Your task to perform on an android device: Open the calendar and show me this week's events? Image 0: 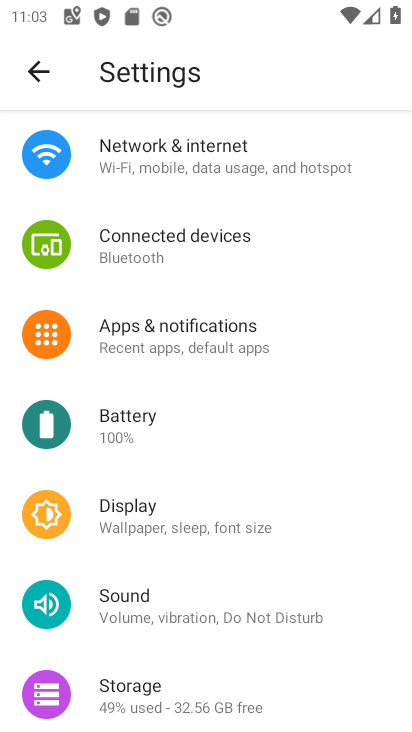
Step 0: press home button
Your task to perform on an android device: Open the calendar and show me this week's events? Image 1: 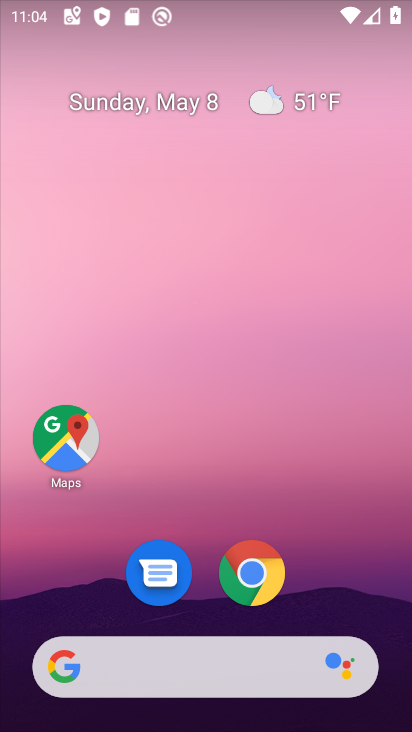
Step 1: drag from (263, 626) to (223, 280)
Your task to perform on an android device: Open the calendar and show me this week's events? Image 2: 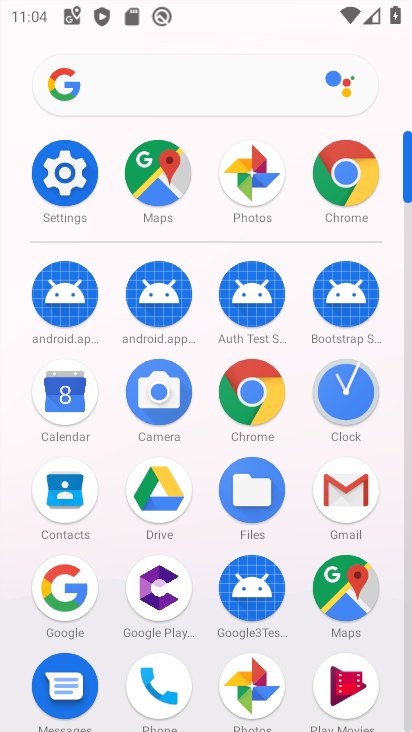
Step 2: click (51, 406)
Your task to perform on an android device: Open the calendar and show me this week's events? Image 3: 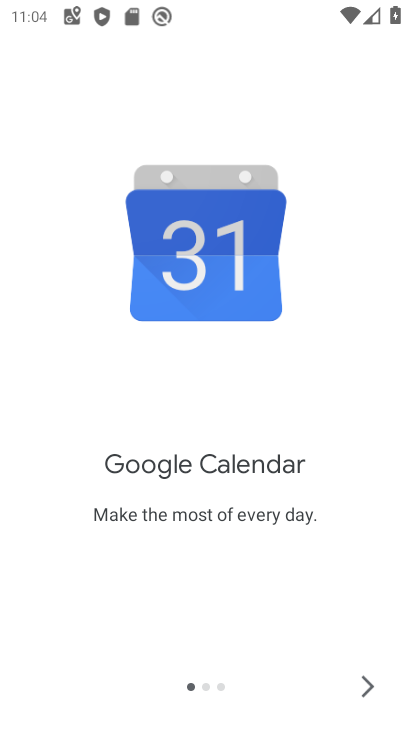
Step 3: click (344, 685)
Your task to perform on an android device: Open the calendar and show me this week's events? Image 4: 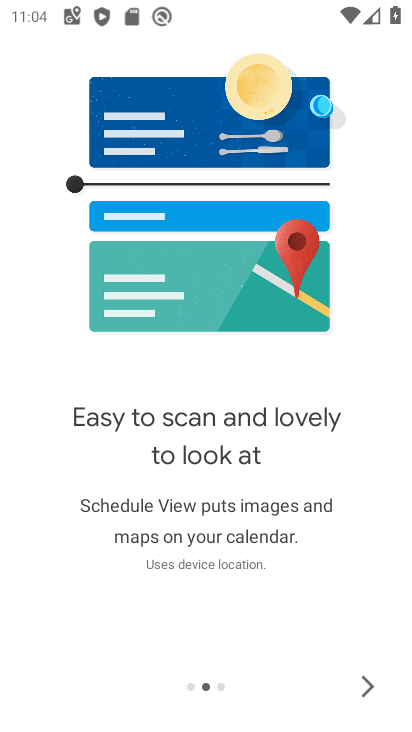
Step 4: click (364, 685)
Your task to perform on an android device: Open the calendar and show me this week's events? Image 5: 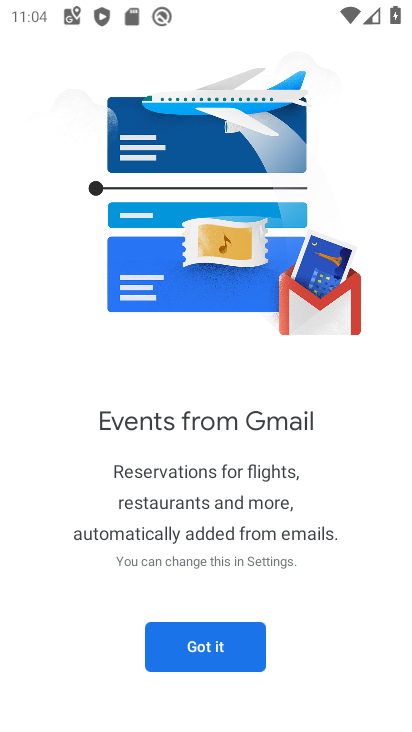
Step 5: click (226, 648)
Your task to perform on an android device: Open the calendar and show me this week's events? Image 6: 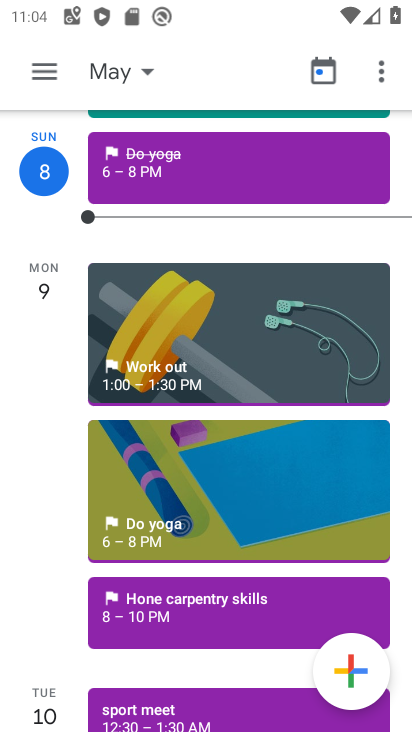
Step 6: task complete